Your task to perform on an android device: star an email in the gmail app Image 0: 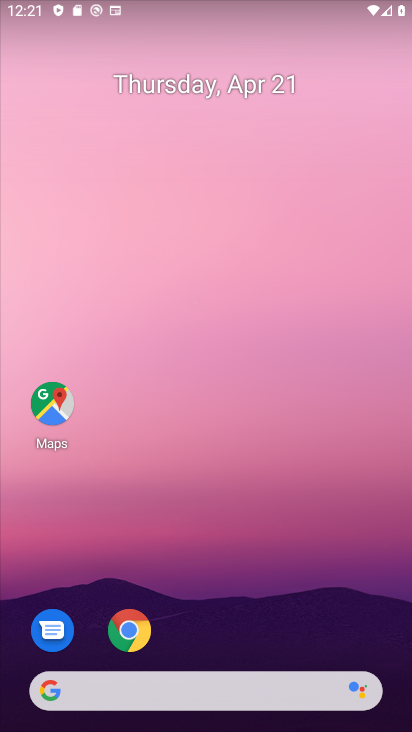
Step 0: drag from (264, 637) to (197, 127)
Your task to perform on an android device: star an email in the gmail app Image 1: 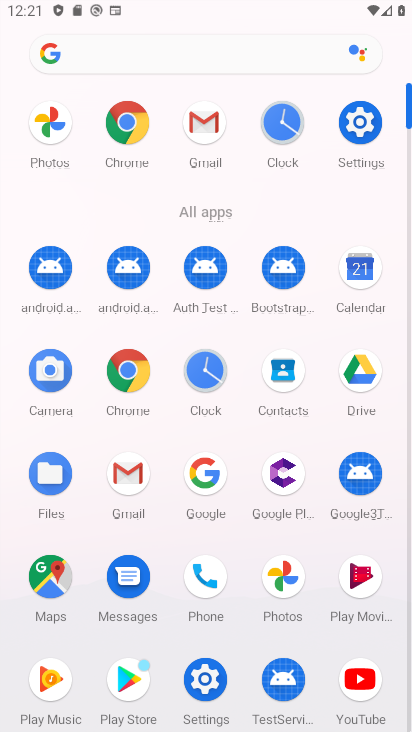
Step 1: click (140, 492)
Your task to perform on an android device: star an email in the gmail app Image 2: 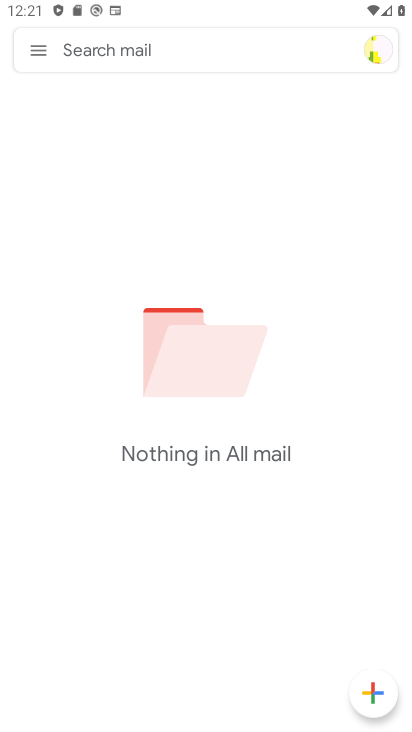
Step 2: click (44, 56)
Your task to perform on an android device: star an email in the gmail app Image 3: 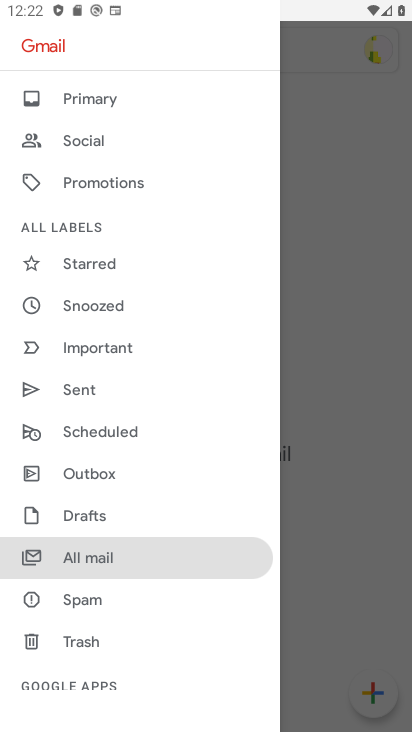
Step 3: click (77, 557)
Your task to perform on an android device: star an email in the gmail app Image 4: 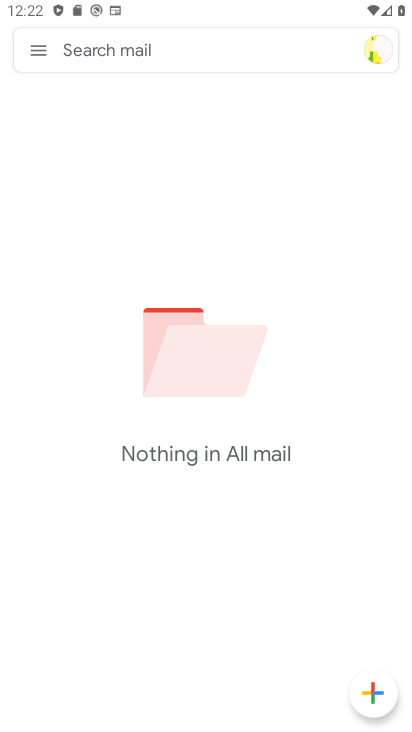
Step 4: task complete